Your task to perform on an android device: toggle notification dots Image 0: 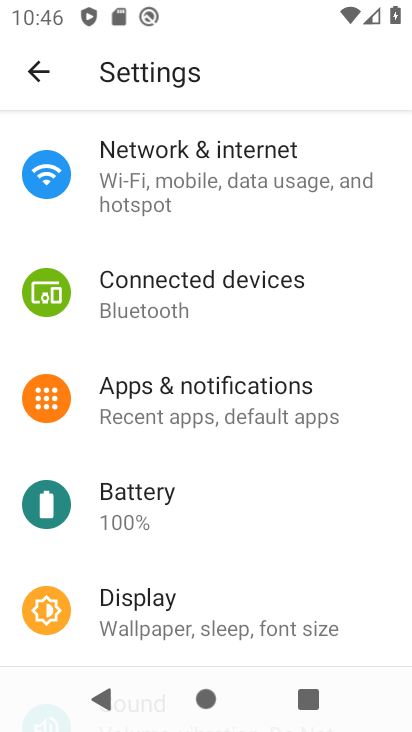
Step 0: press home button
Your task to perform on an android device: toggle notification dots Image 1: 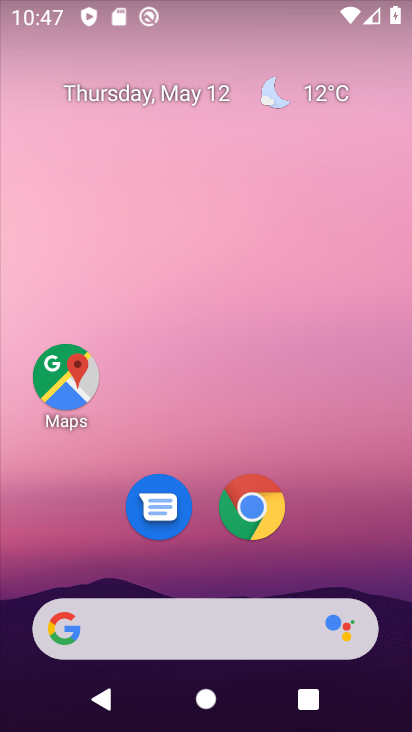
Step 1: drag from (207, 556) to (245, 0)
Your task to perform on an android device: toggle notification dots Image 2: 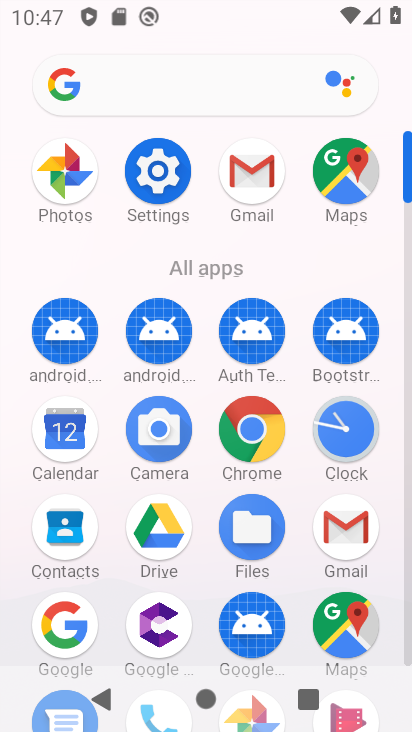
Step 2: click (167, 181)
Your task to perform on an android device: toggle notification dots Image 3: 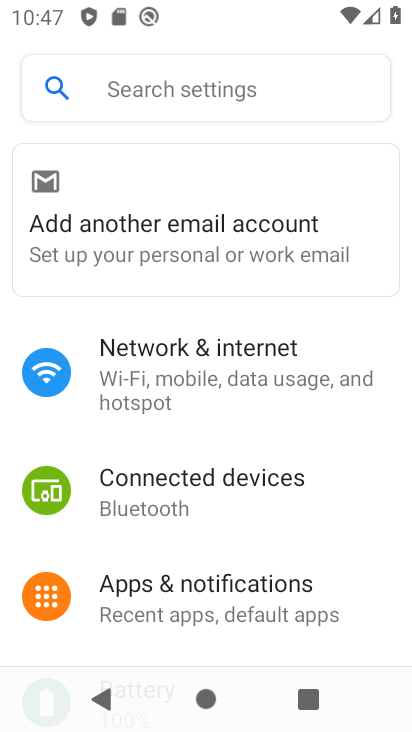
Step 3: drag from (204, 552) to (270, 277)
Your task to perform on an android device: toggle notification dots Image 4: 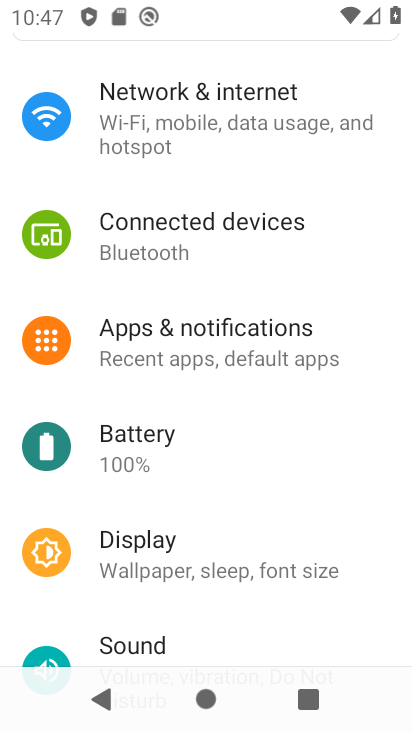
Step 4: click (210, 355)
Your task to perform on an android device: toggle notification dots Image 5: 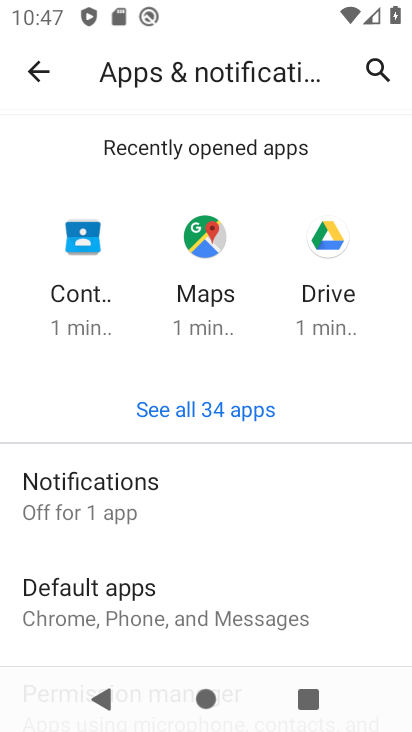
Step 5: click (108, 514)
Your task to perform on an android device: toggle notification dots Image 6: 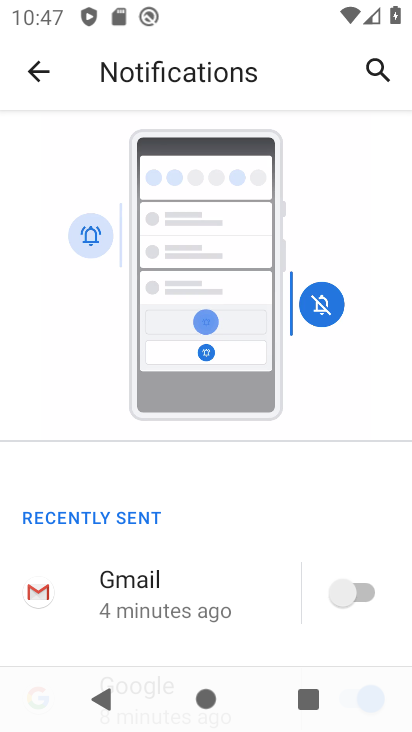
Step 6: drag from (131, 543) to (186, 160)
Your task to perform on an android device: toggle notification dots Image 7: 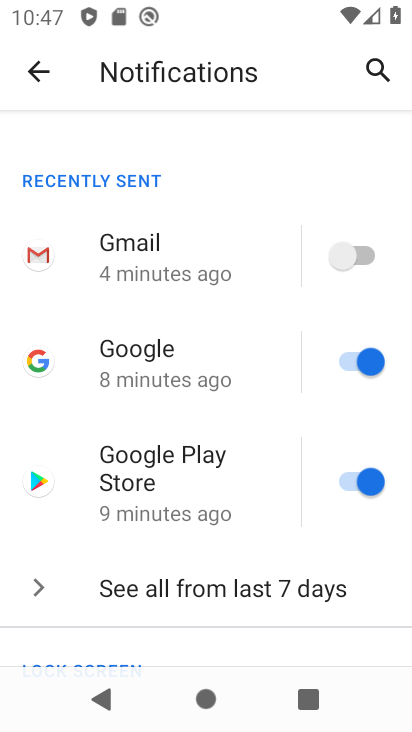
Step 7: drag from (149, 488) to (242, 111)
Your task to perform on an android device: toggle notification dots Image 8: 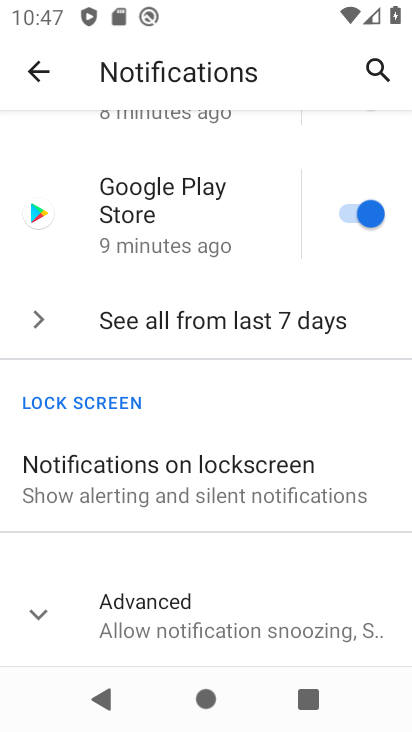
Step 8: drag from (188, 468) to (255, 97)
Your task to perform on an android device: toggle notification dots Image 9: 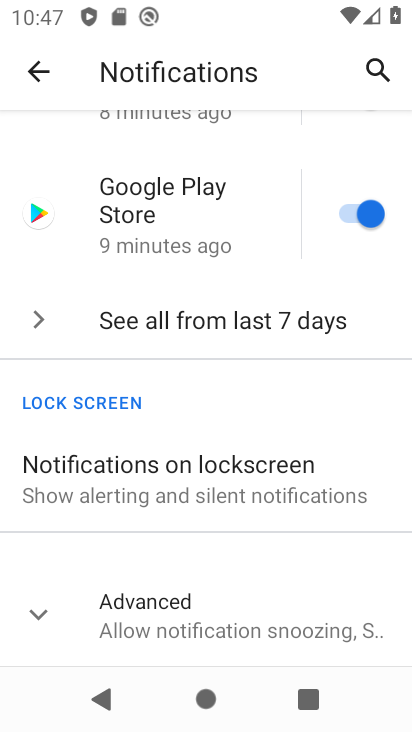
Step 9: click (123, 628)
Your task to perform on an android device: toggle notification dots Image 10: 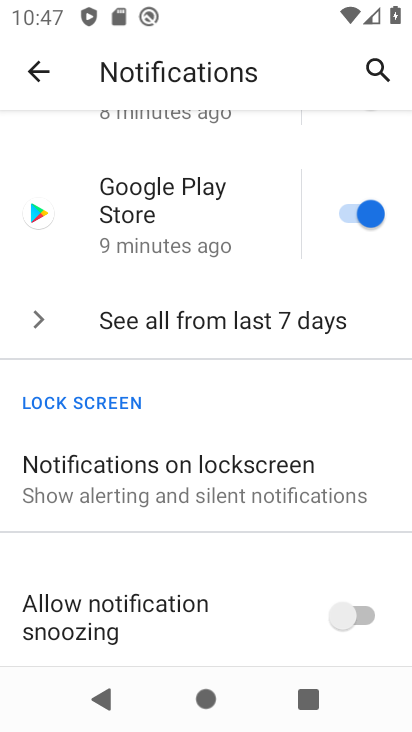
Step 10: drag from (204, 571) to (206, 277)
Your task to perform on an android device: toggle notification dots Image 11: 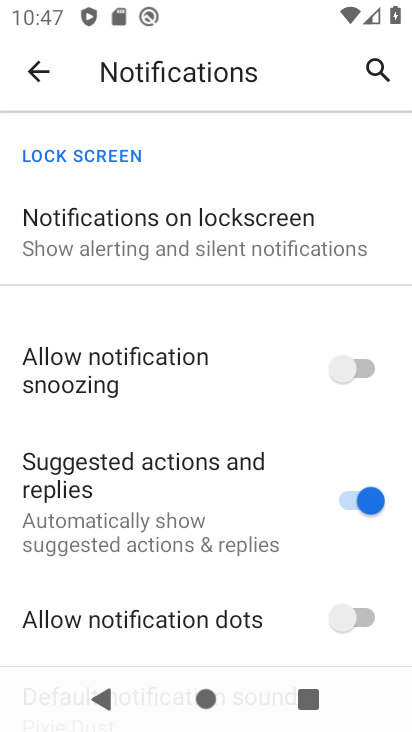
Step 11: drag from (182, 549) to (223, 375)
Your task to perform on an android device: toggle notification dots Image 12: 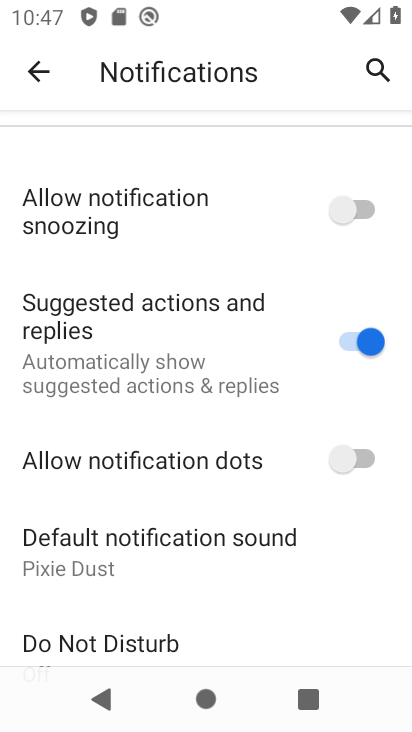
Step 12: click (365, 577)
Your task to perform on an android device: toggle notification dots Image 13: 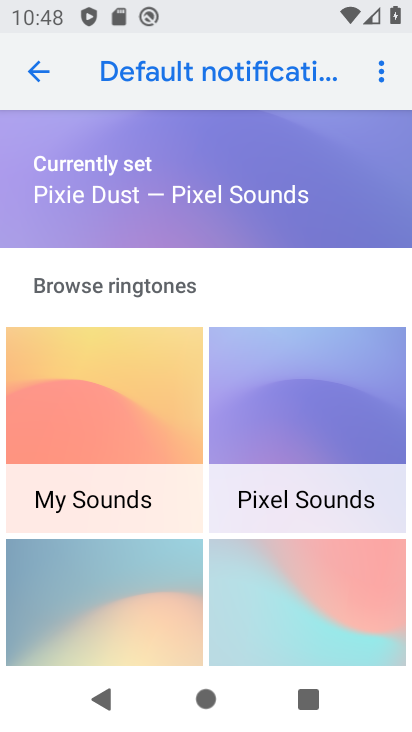
Step 13: click (30, 68)
Your task to perform on an android device: toggle notification dots Image 14: 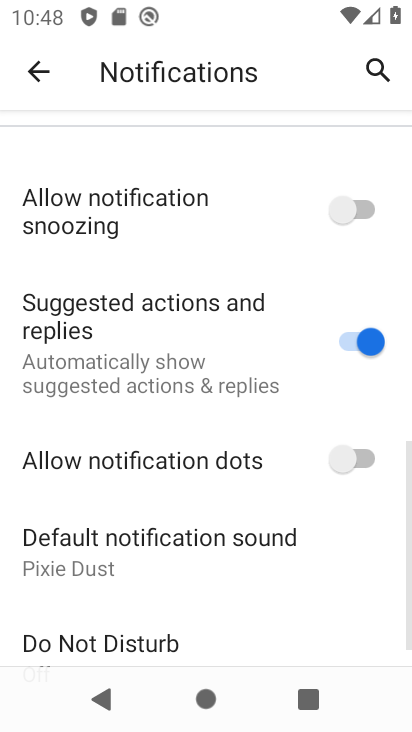
Step 14: click (320, 462)
Your task to perform on an android device: toggle notification dots Image 15: 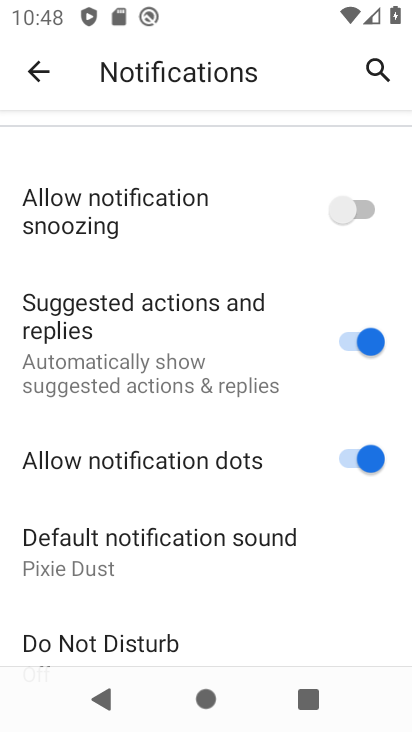
Step 15: task complete